Your task to perform on an android device: toggle data saver in the chrome app Image 0: 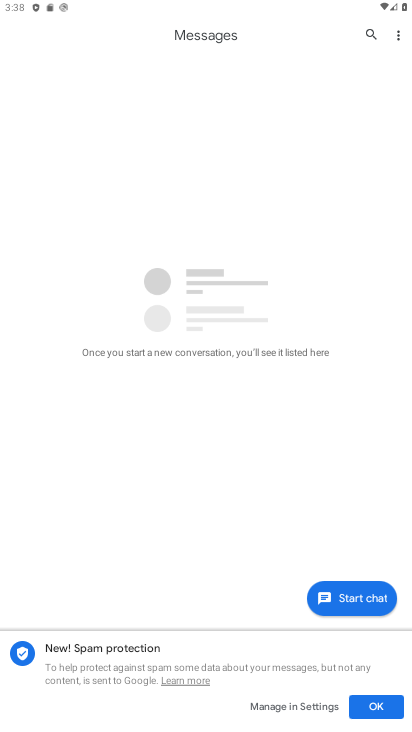
Step 0: press home button
Your task to perform on an android device: toggle data saver in the chrome app Image 1: 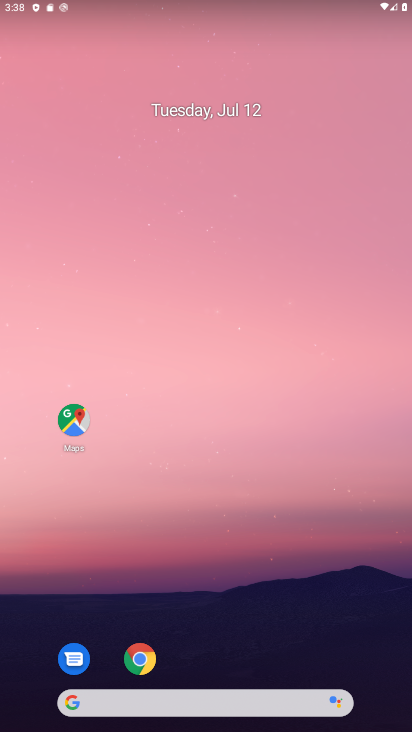
Step 1: drag from (181, 680) to (278, 151)
Your task to perform on an android device: toggle data saver in the chrome app Image 2: 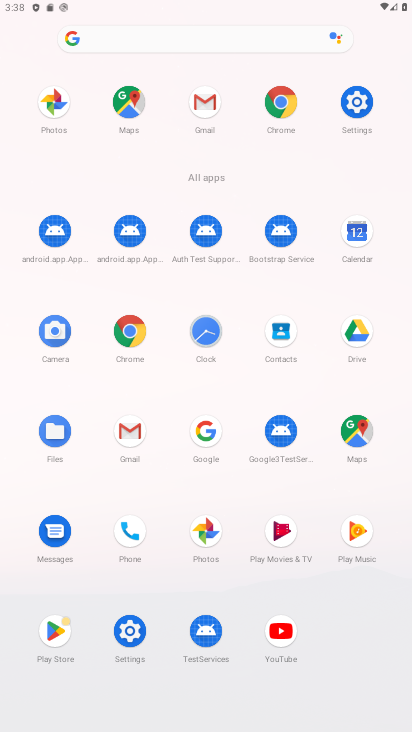
Step 2: click (133, 329)
Your task to perform on an android device: toggle data saver in the chrome app Image 3: 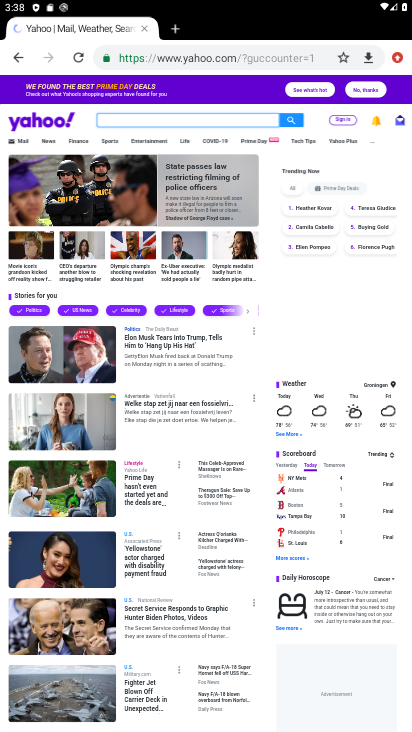
Step 3: drag from (400, 59) to (329, 415)
Your task to perform on an android device: toggle data saver in the chrome app Image 4: 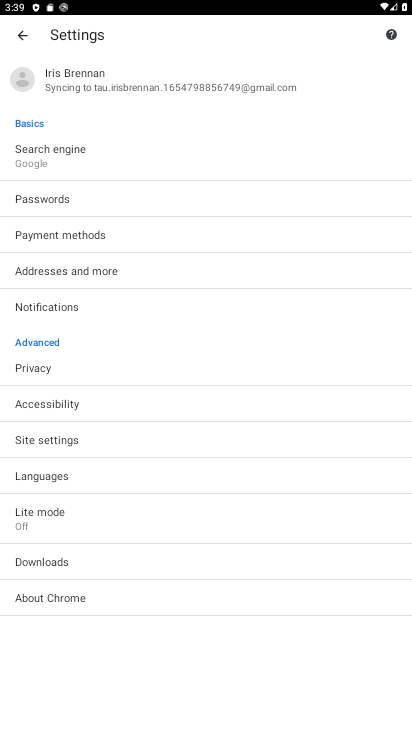
Step 4: click (107, 526)
Your task to perform on an android device: toggle data saver in the chrome app Image 5: 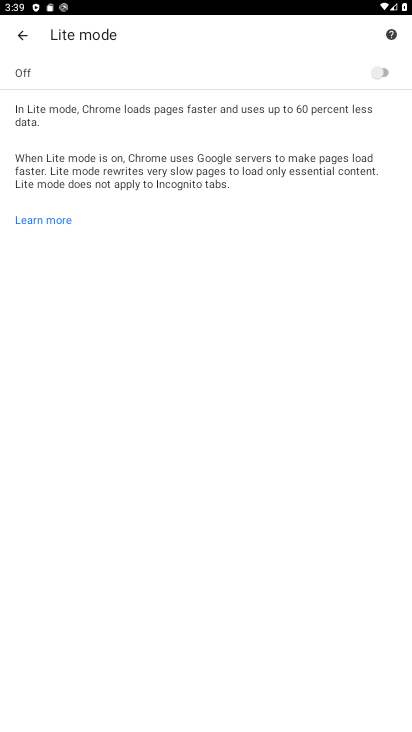
Step 5: click (398, 68)
Your task to perform on an android device: toggle data saver in the chrome app Image 6: 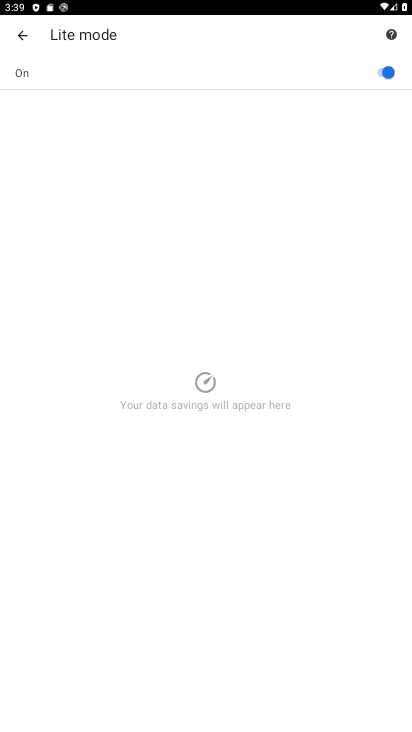
Step 6: task complete